Your task to perform on an android device: Open settings on Google Maps Image 0: 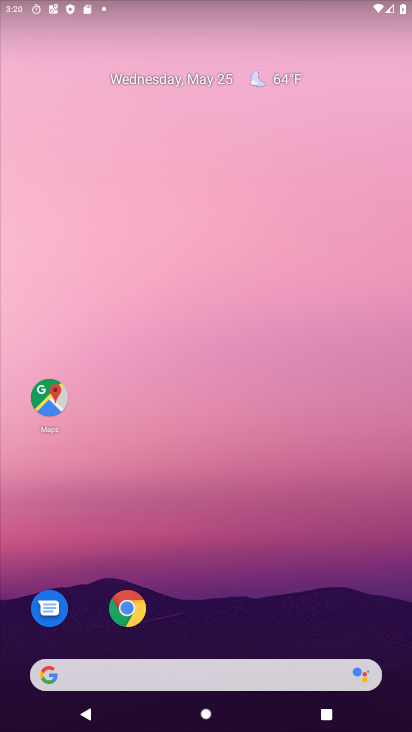
Step 0: drag from (270, 572) to (307, 79)
Your task to perform on an android device: Open settings on Google Maps Image 1: 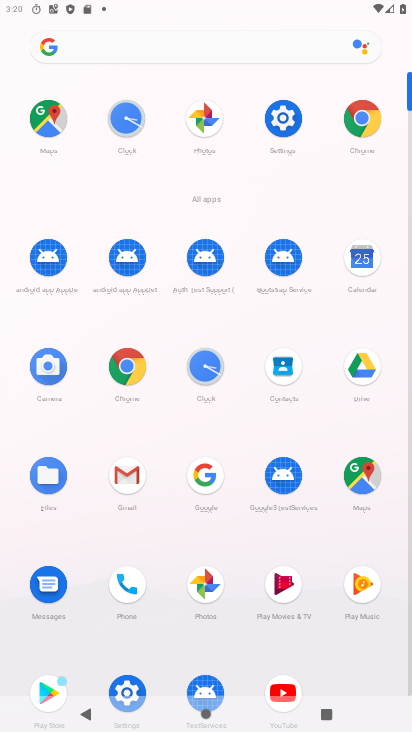
Step 1: click (372, 474)
Your task to perform on an android device: Open settings on Google Maps Image 2: 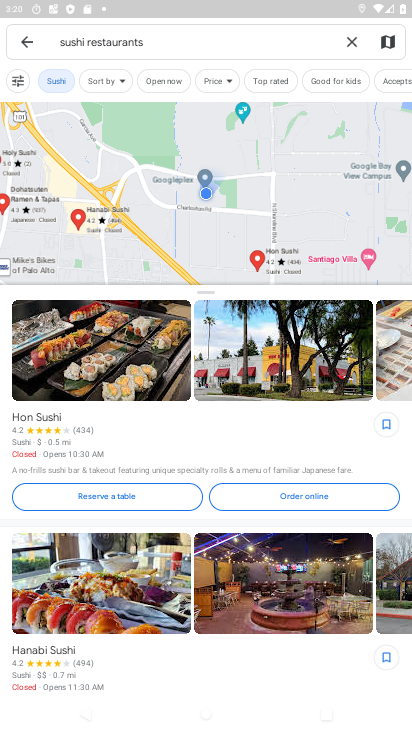
Step 2: click (28, 42)
Your task to perform on an android device: Open settings on Google Maps Image 3: 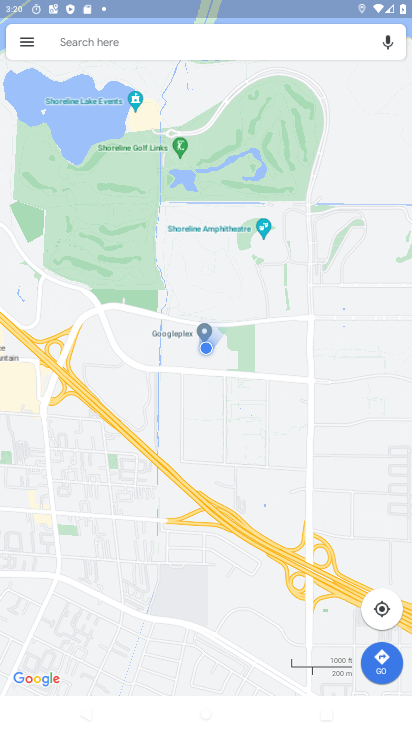
Step 3: click (28, 42)
Your task to perform on an android device: Open settings on Google Maps Image 4: 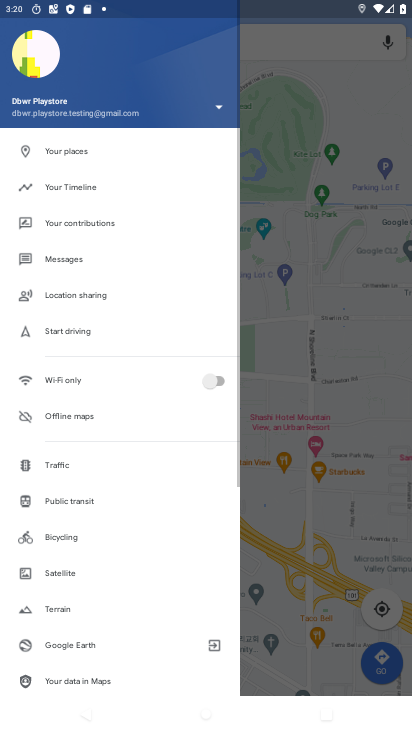
Step 4: drag from (85, 603) to (170, 160)
Your task to perform on an android device: Open settings on Google Maps Image 5: 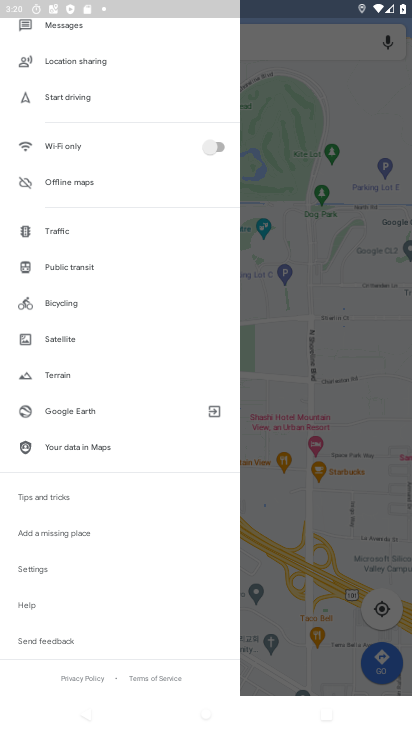
Step 5: click (53, 570)
Your task to perform on an android device: Open settings on Google Maps Image 6: 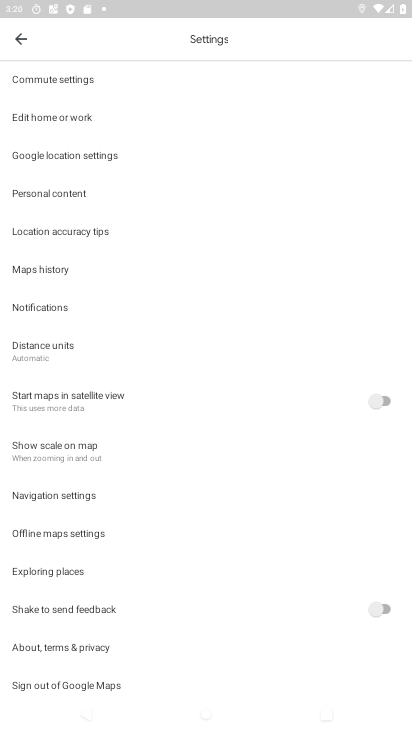
Step 6: task complete